Your task to perform on an android device: find which apps use the phone's location Image 0: 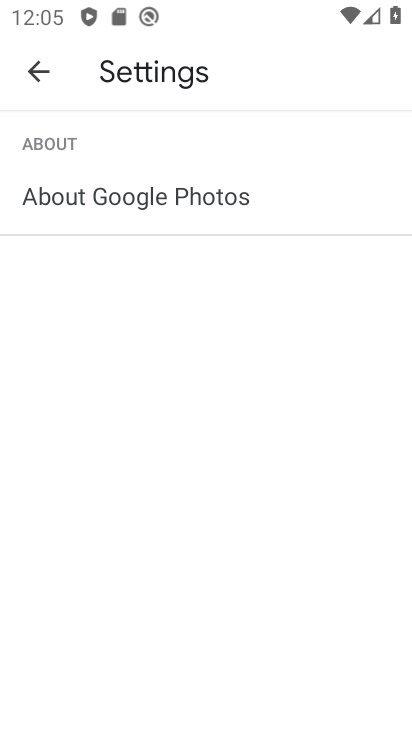
Step 0: task complete